Your task to perform on an android device: turn pop-ups on in chrome Image 0: 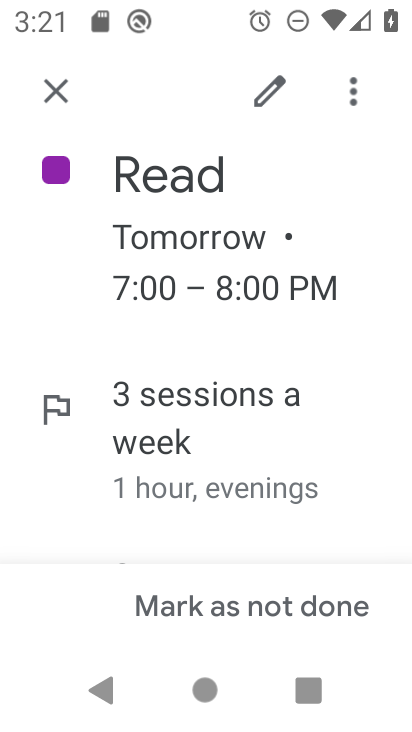
Step 0: press home button
Your task to perform on an android device: turn pop-ups on in chrome Image 1: 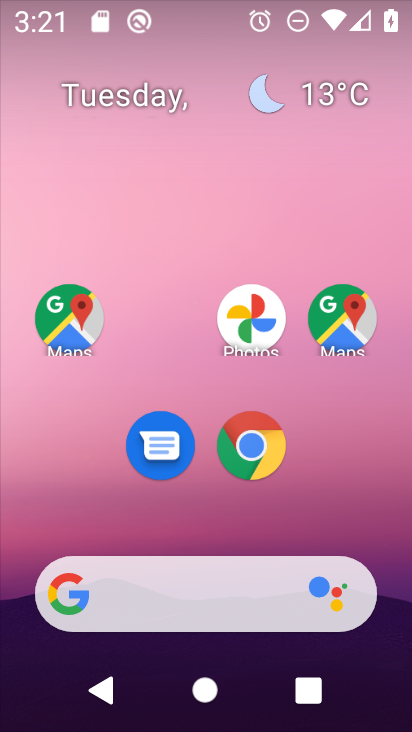
Step 1: drag from (388, 560) to (388, 199)
Your task to perform on an android device: turn pop-ups on in chrome Image 2: 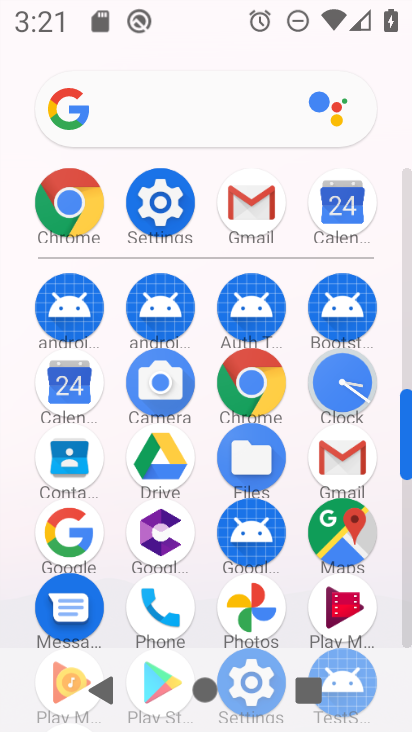
Step 2: click (264, 401)
Your task to perform on an android device: turn pop-ups on in chrome Image 3: 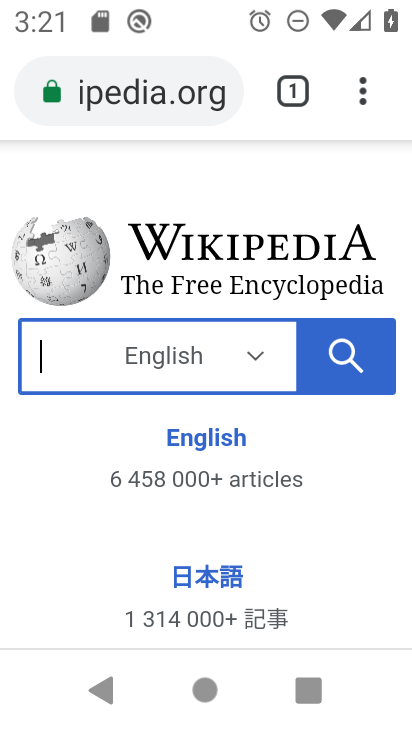
Step 3: click (362, 103)
Your task to perform on an android device: turn pop-ups on in chrome Image 4: 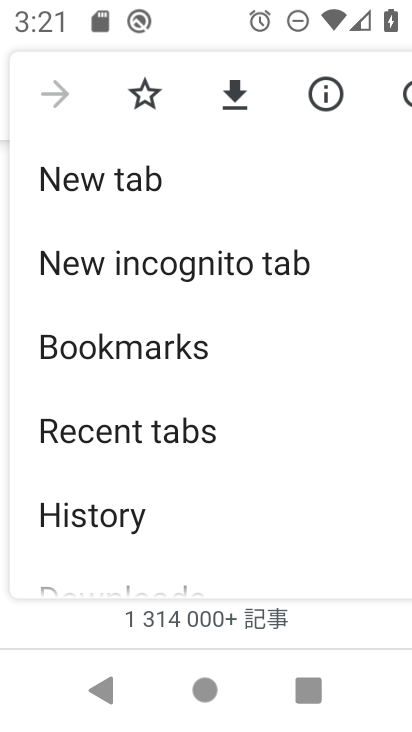
Step 4: drag from (341, 483) to (351, 402)
Your task to perform on an android device: turn pop-ups on in chrome Image 5: 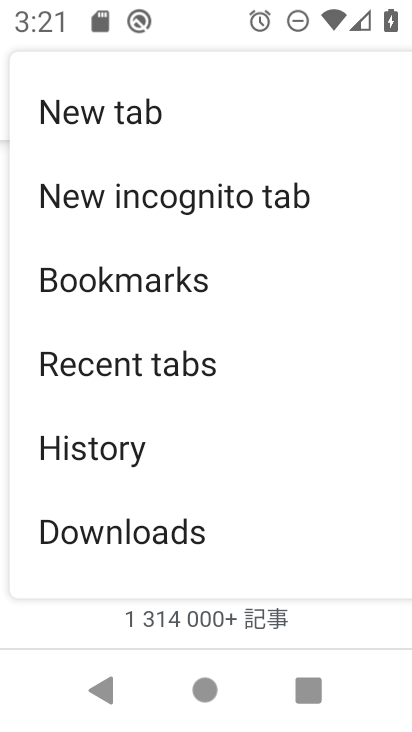
Step 5: drag from (325, 558) to (336, 475)
Your task to perform on an android device: turn pop-ups on in chrome Image 6: 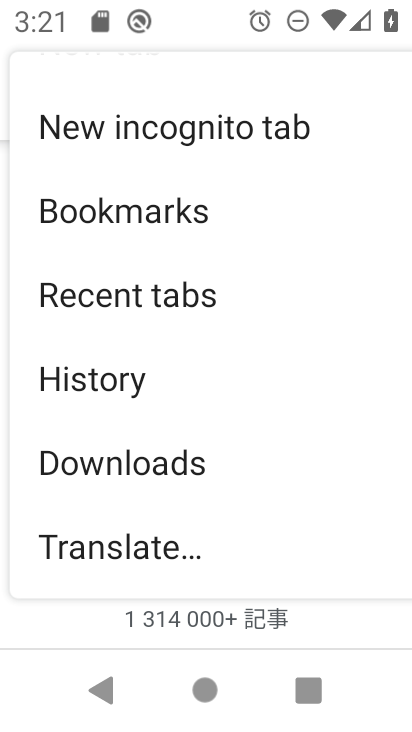
Step 6: drag from (326, 553) to (333, 435)
Your task to perform on an android device: turn pop-ups on in chrome Image 7: 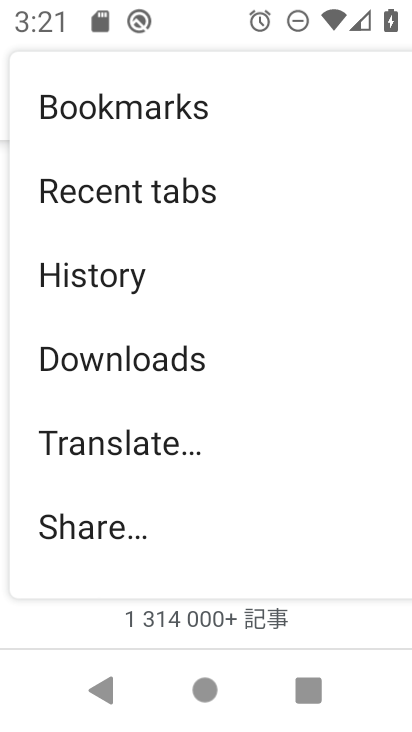
Step 7: drag from (314, 552) to (326, 445)
Your task to perform on an android device: turn pop-ups on in chrome Image 8: 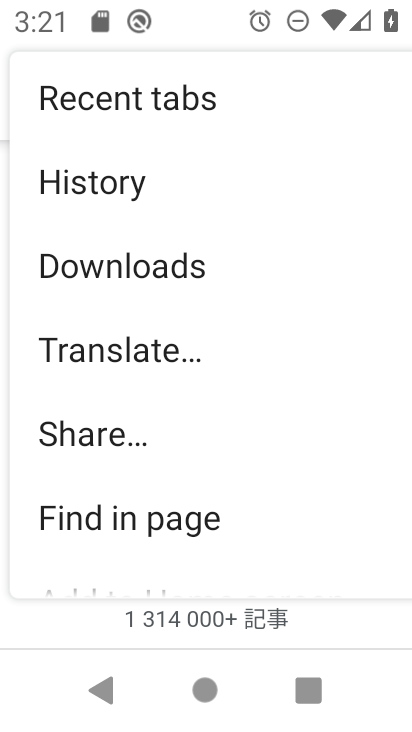
Step 8: drag from (315, 542) to (325, 432)
Your task to perform on an android device: turn pop-ups on in chrome Image 9: 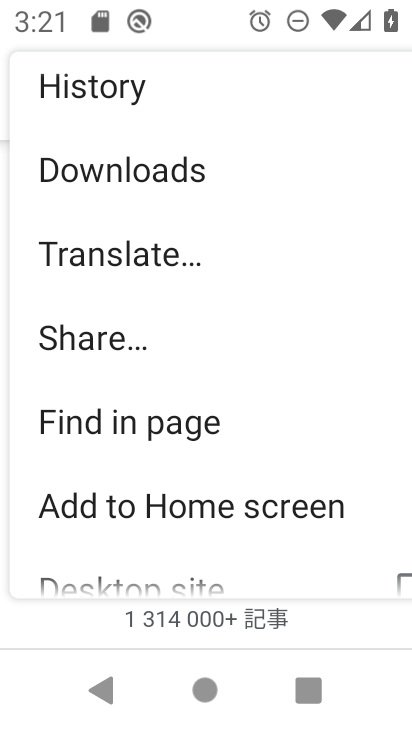
Step 9: drag from (344, 562) to (354, 416)
Your task to perform on an android device: turn pop-ups on in chrome Image 10: 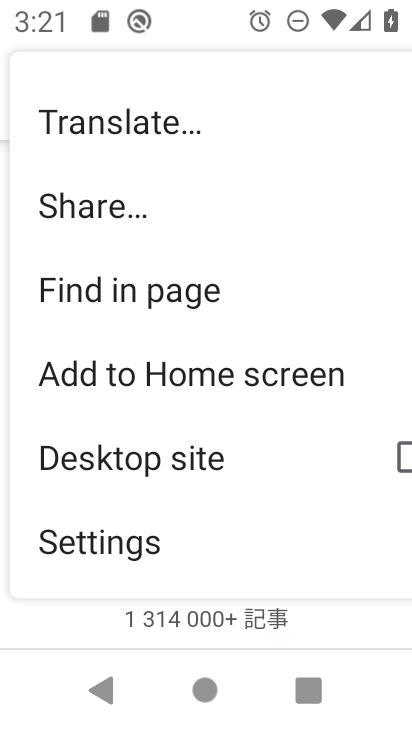
Step 10: drag from (311, 488) to (320, 353)
Your task to perform on an android device: turn pop-ups on in chrome Image 11: 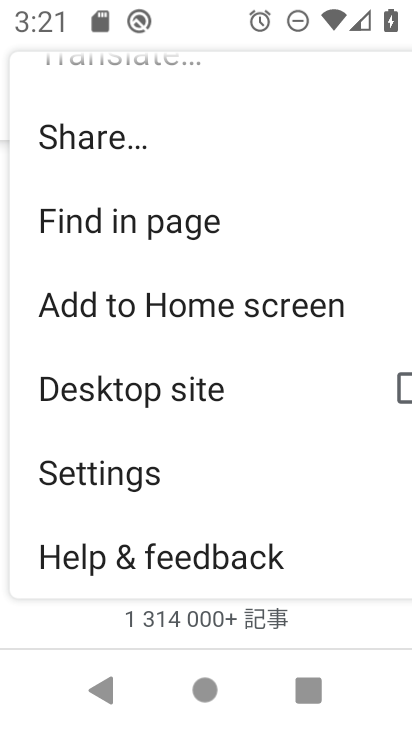
Step 11: drag from (315, 495) to (310, 391)
Your task to perform on an android device: turn pop-ups on in chrome Image 12: 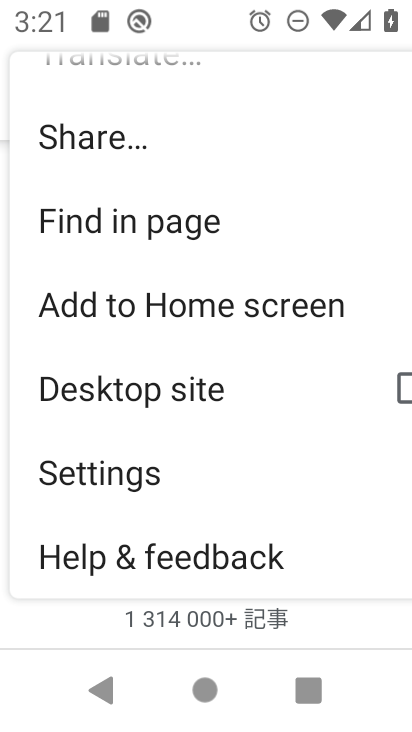
Step 12: click (142, 490)
Your task to perform on an android device: turn pop-ups on in chrome Image 13: 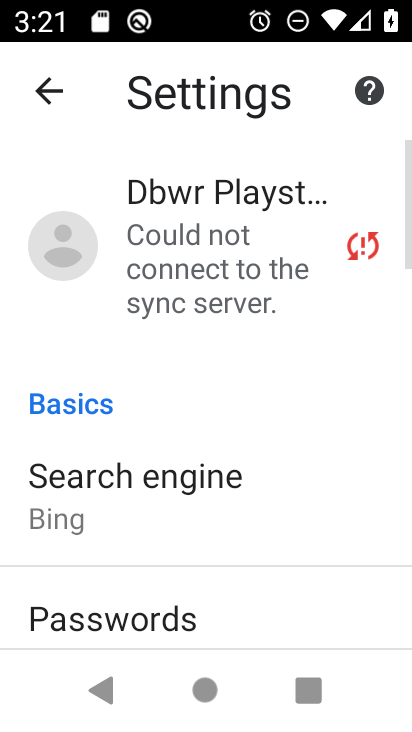
Step 13: drag from (306, 588) to (306, 496)
Your task to perform on an android device: turn pop-ups on in chrome Image 14: 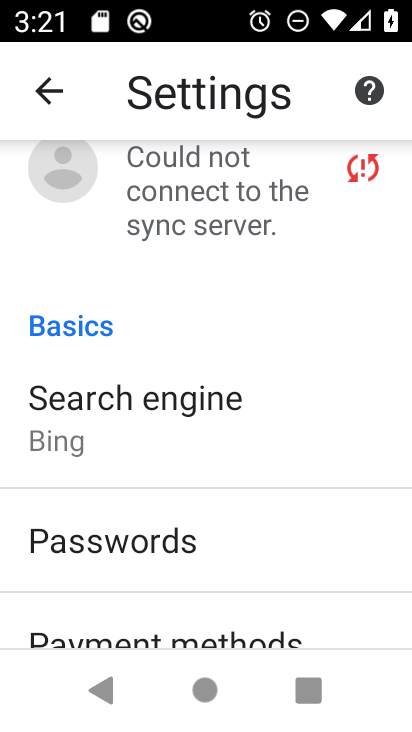
Step 14: drag from (307, 577) to (315, 490)
Your task to perform on an android device: turn pop-ups on in chrome Image 15: 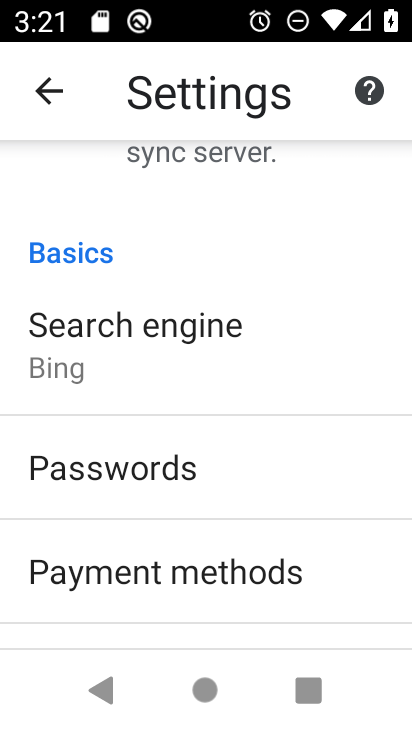
Step 15: drag from (320, 596) to (322, 495)
Your task to perform on an android device: turn pop-ups on in chrome Image 16: 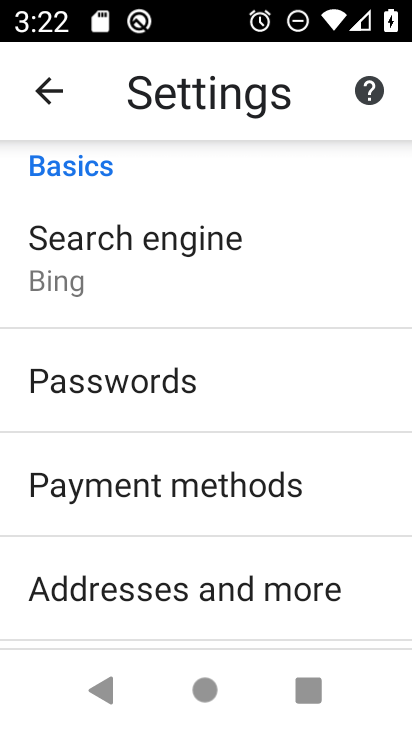
Step 16: drag from (322, 603) to (325, 516)
Your task to perform on an android device: turn pop-ups on in chrome Image 17: 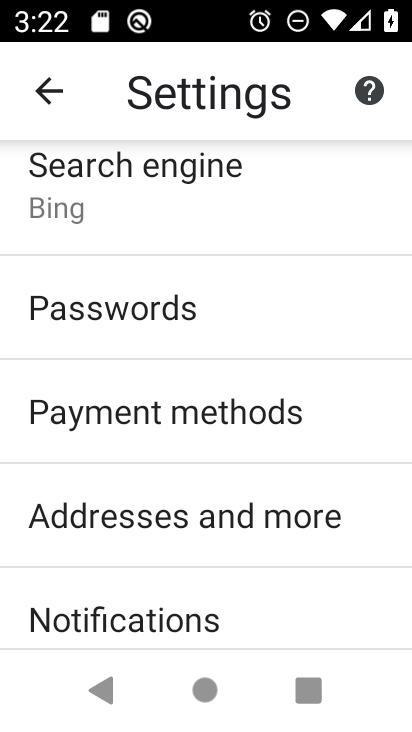
Step 17: drag from (326, 597) to (334, 514)
Your task to perform on an android device: turn pop-ups on in chrome Image 18: 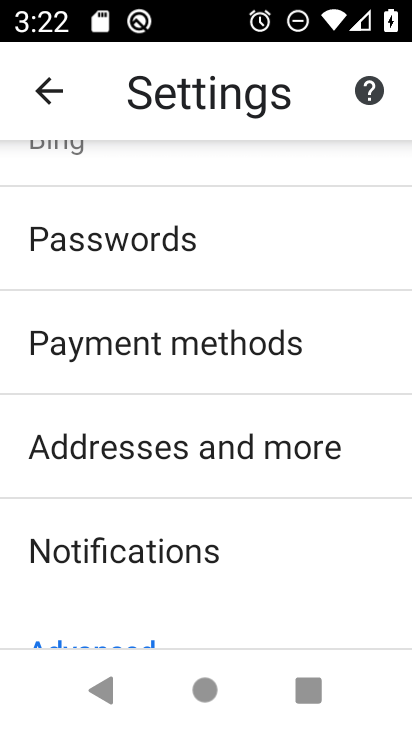
Step 18: drag from (314, 602) to (318, 520)
Your task to perform on an android device: turn pop-ups on in chrome Image 19: 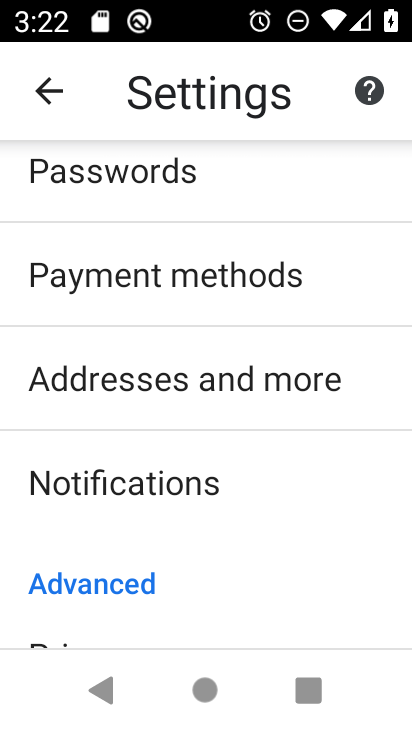
Step 19: drag from (310, 586) to (316, 490)
Your task to perform on an android device: turn pop-ups on in chrome Image 20: 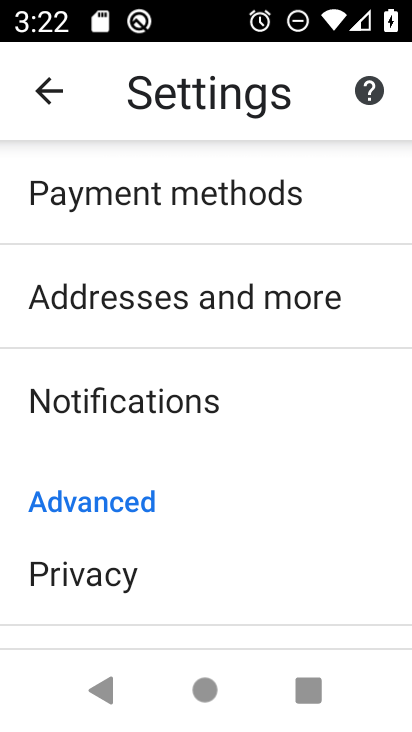
Step 20: drag from (312, 595) to (321, 453)
Your task to perform on an android device: turn pop-ups on in chrome Image 21: 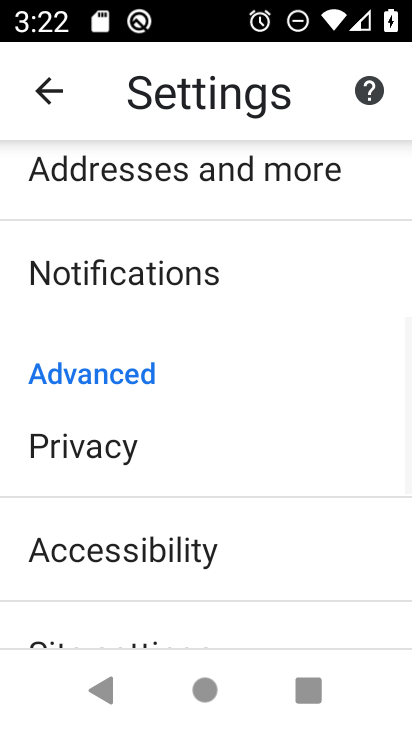
Step 21: drag from (324, 586) to (340, 453)
Your task to perform on an android device: turn pop-ups on in chrome Image 22: 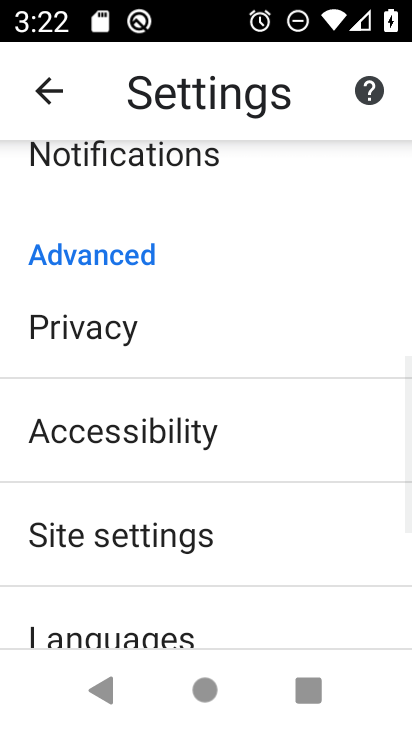
Step 22: drag from (320, 598) to (327, 506)
Your task to perform on an android device: turn pop-ups on in chrome Image 23: 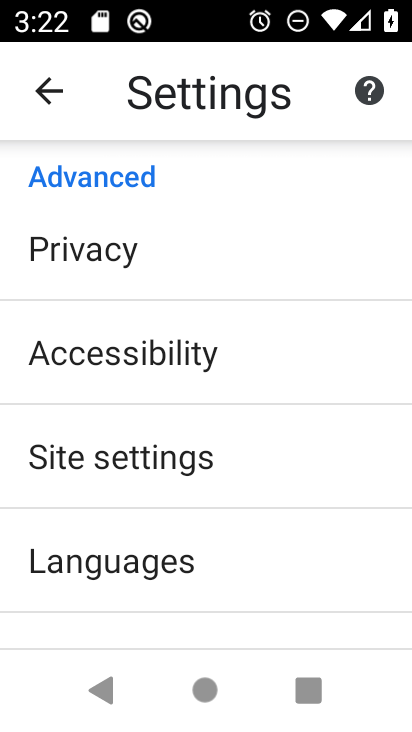
Step 23: click (251, 468)
Your task to perform on an android device: turn pop-ups on in chrome Image 24: 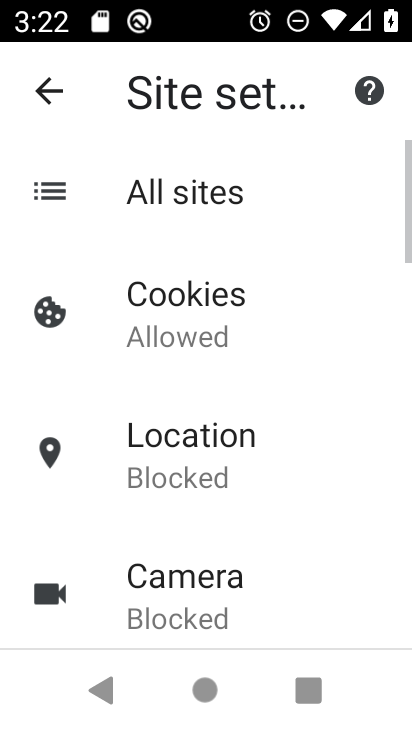
Step 24: drag from (306, 588) to (307, 513)
Your task to perform on an android device: turn pop-ups on in chrome Image 25: 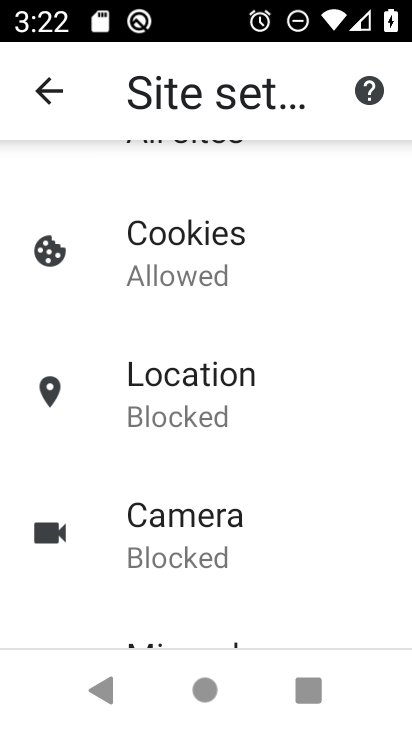
Step 25: drag from (305, 595) to (311, 528)
Your task to perform on an android device: turn pop-ups on in chrome Image 26: 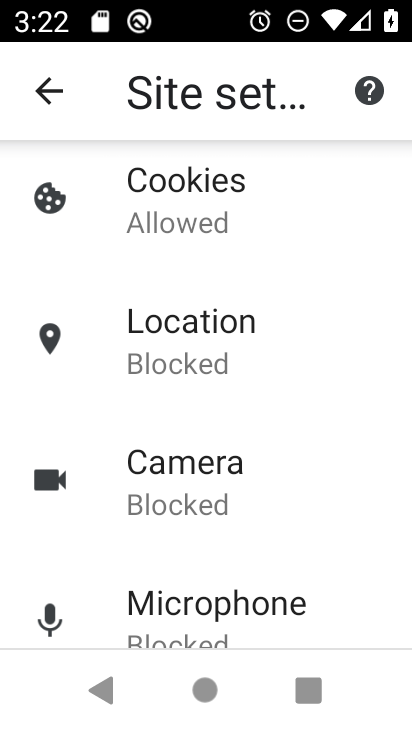
Step 26: drag from (317, 619) to (329, 513)
Your task to perform on an android device: turn pop-ups on in chrome Image 27: 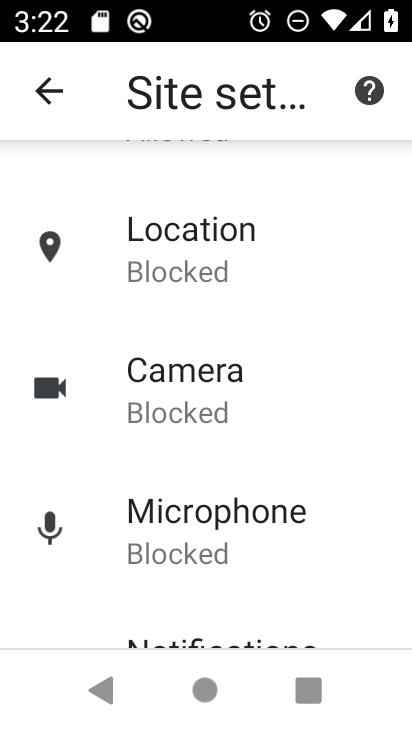
Step 27: drag from (329, 587) to (331, 492)
Your task to perform on an android device: turn pop-ups on in chrome Image 28: 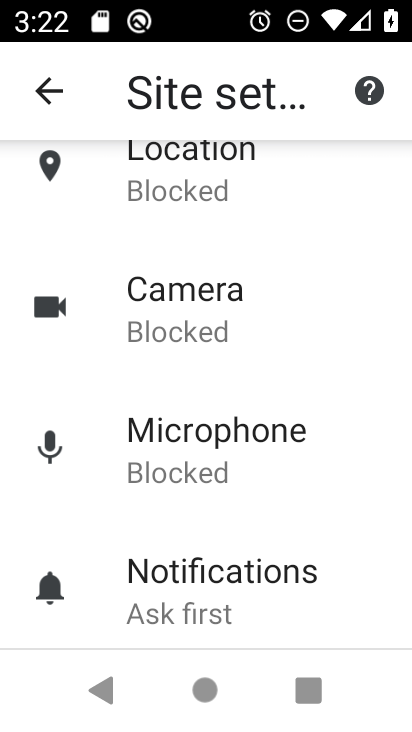
Step 28: drag from (318, 591) to (328, 480)
Your task to perform on an android device: turn pop-ups on in chrome Image 29: 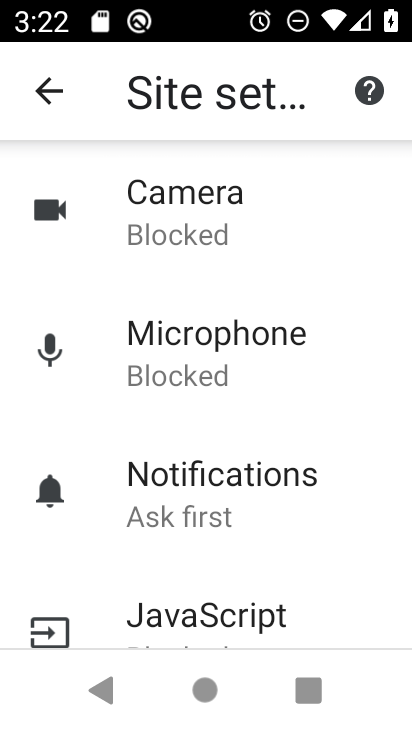
Step 29: drag from (333, 597) to (343, 464)
Your task to perform on an android device: turn pop-ups on in chrome Image 30: 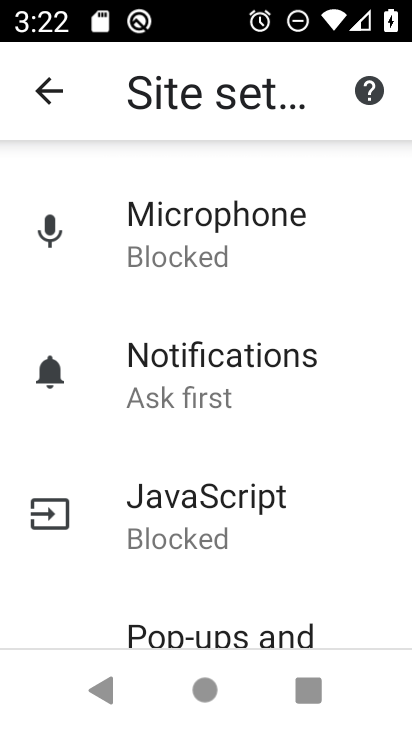
Step 30: drag from (337, 590) to (353, 455)
Your task to perform on an android device: turn pop-ups on in chrome Image 31: 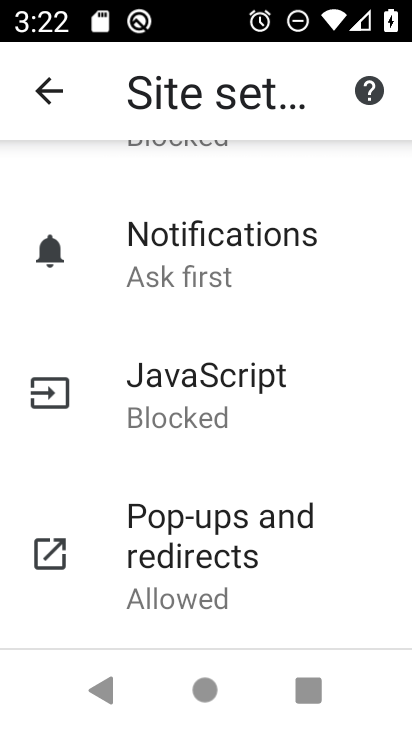
Step 31: drag from (332, 601) to (344, 485)
Your task to perform on an android device: turn pop-ups on in chrome Image 32: 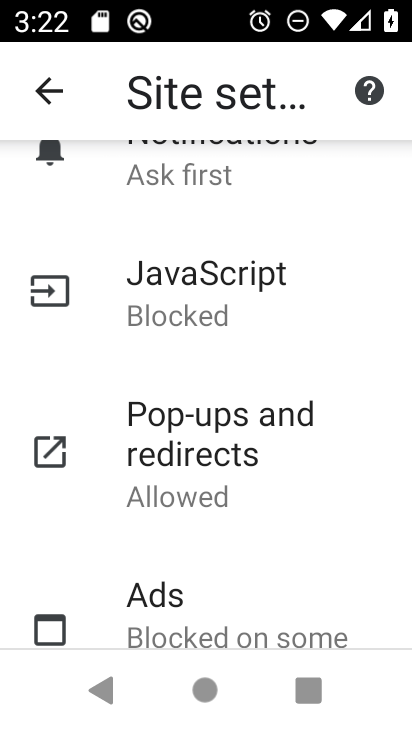
Step 32: click (236, 451)
Your task to perform on an android device: turn pop-ups on in chrome Image 33: 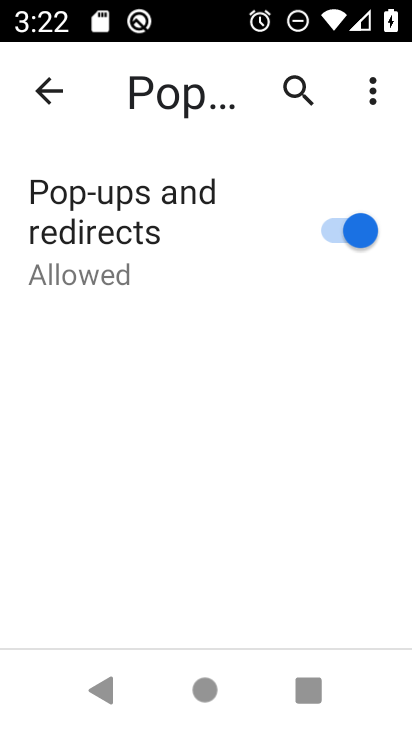
Step 33: task complete